Your task to perform on an android device: turn off location history Image 0: 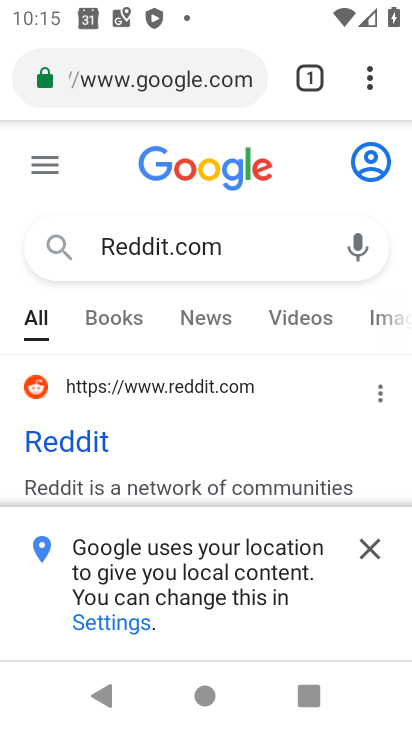
Step 0: press home button
Your task to perform on an android device: turn off location history Image 1: 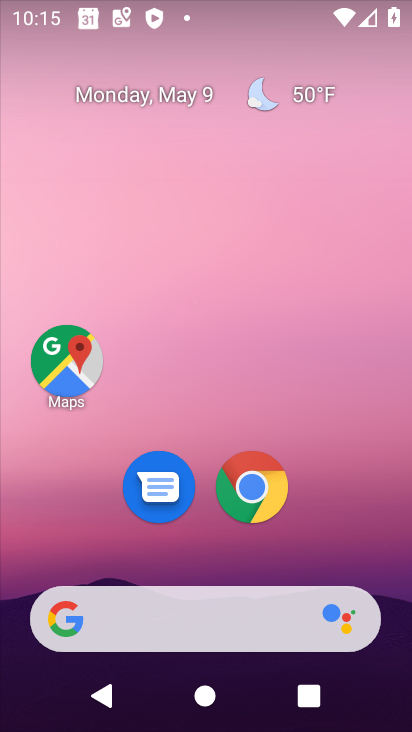
Step 1: drag from (15, 664) to (389, 90)
Your task to perform on an android device: turn off location history Image 2: 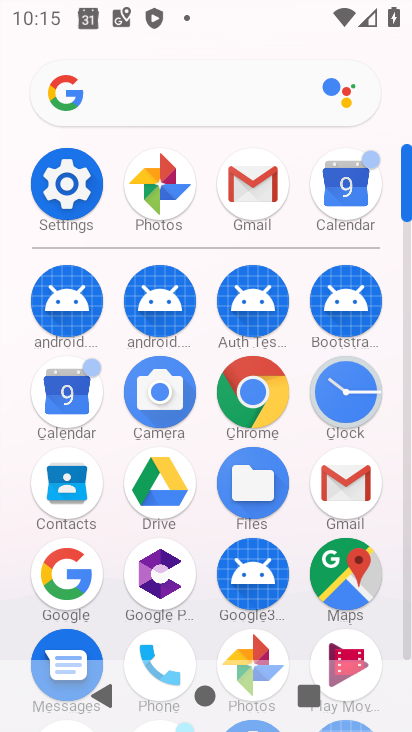
Step 2: click (64, 192)
Your task to perform on an android device: turn off location history Image 3: 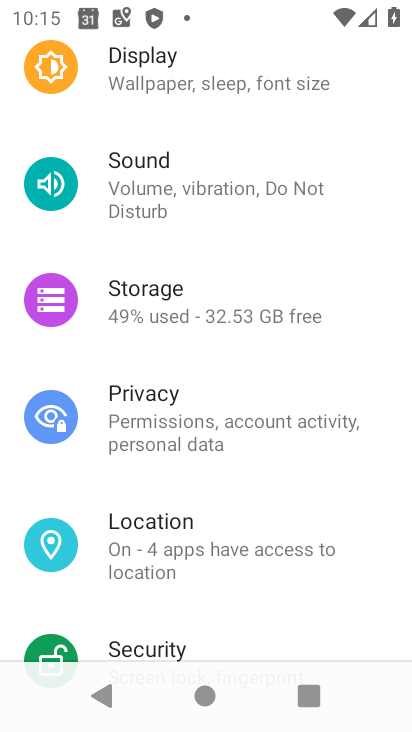
Step 3: click (170, 546)
Your task to perform on an android device: turn off location history Image 4: 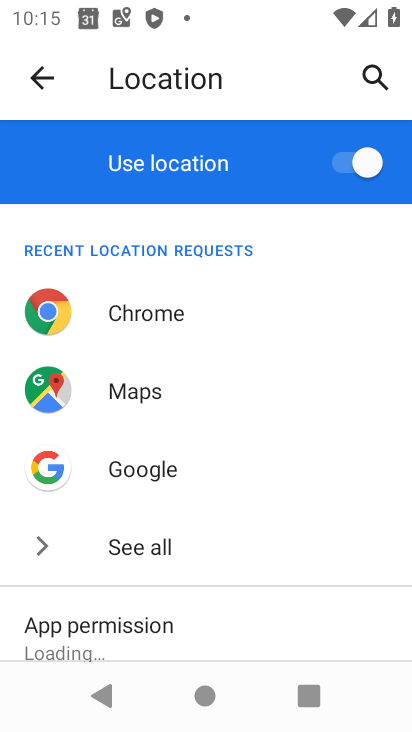
Step 4: drag from (123, 657) to (334, 186)
Your task to perform on an android device: turn off location history Image 5: 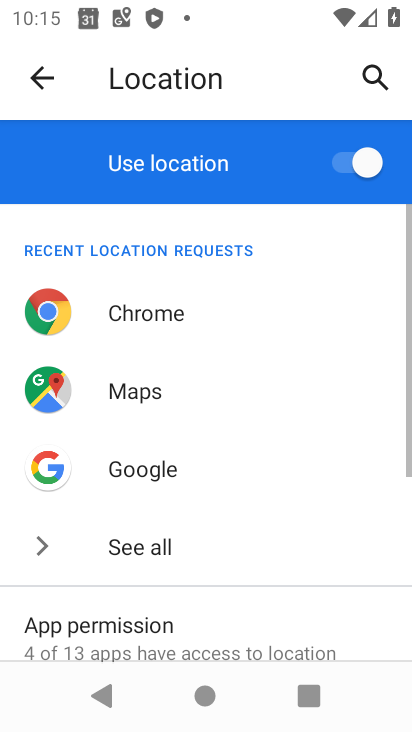
Step 5: drag from (0, 639) to (303, 203)
Your task to perform on an android device: turn off location history Image 6: 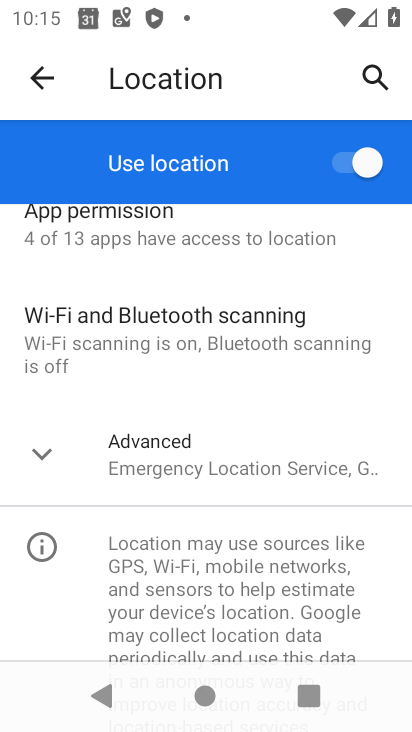
Step 6: click (189, 453)
Your task to perform on an android device: turn off location history Image 7: 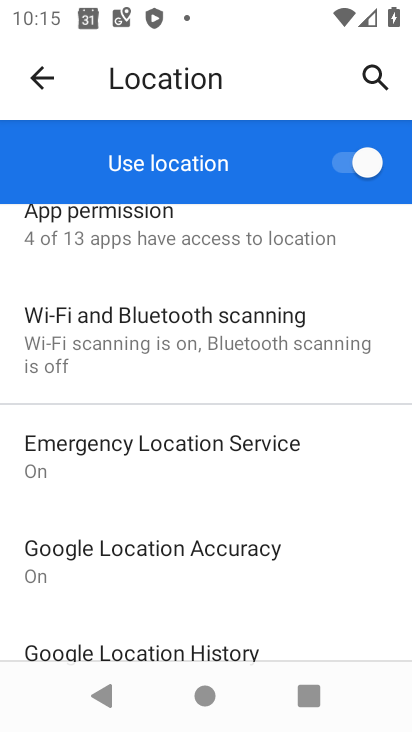
Step 7: click (246, 650)
Your task to perform on an android device: turn off location history Image 8: 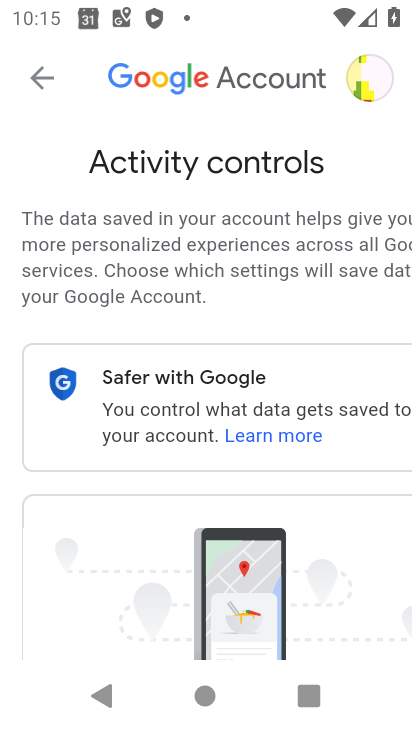
Step 8: drag from (26, 654) to (301, 99)
Your task to perform on an android device: turn off location history Image 9: 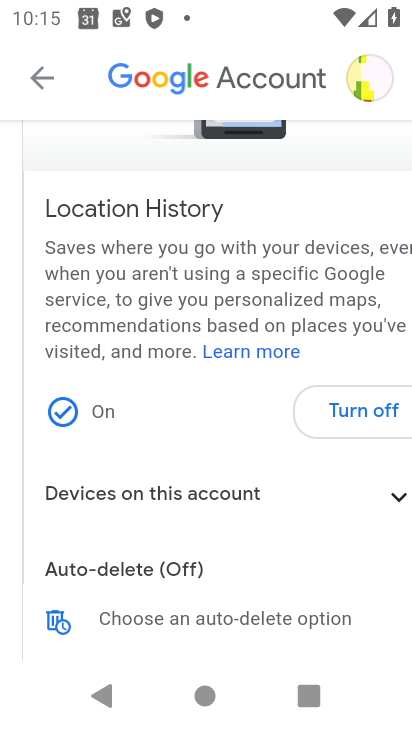
Step 9: click (363, 418)
Your task to perform on an android device: turn off location history Image 10: 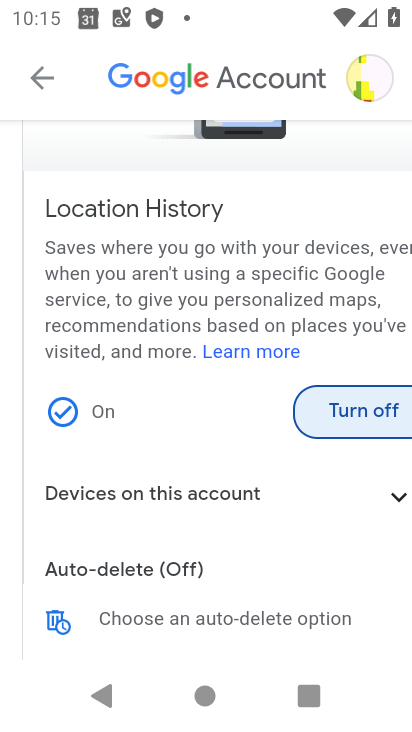
Step 10: task complete